Your task to perform on an android device: change the clock display to digital Image 0: 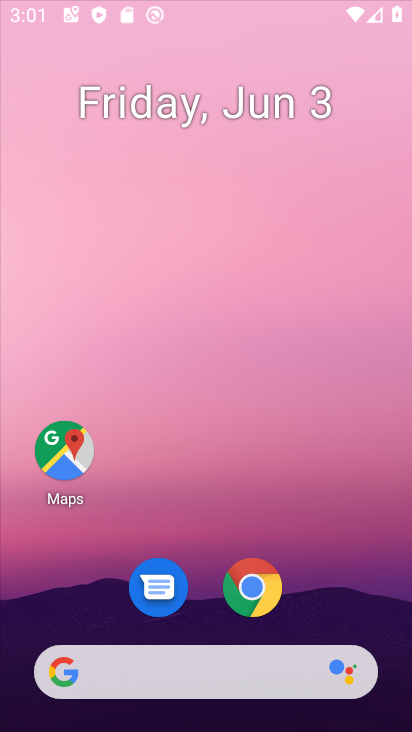
Step 0: click (247, 587)
Your task to perform on an android device: change the clock display to digital Image 1: 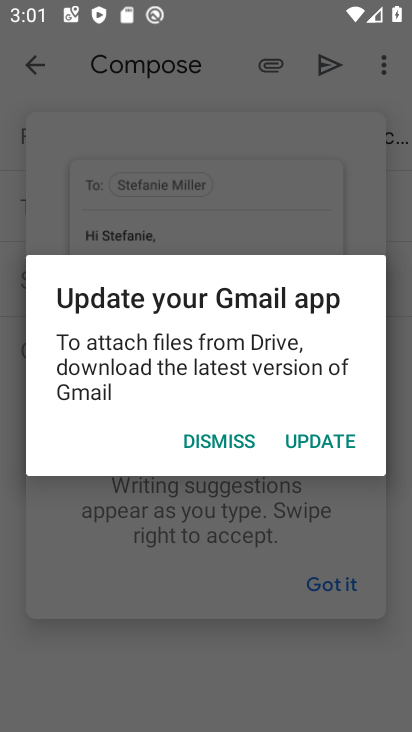
Step 1: press home button
Your task to perform on an android device: change the clock display to digital Image 2: 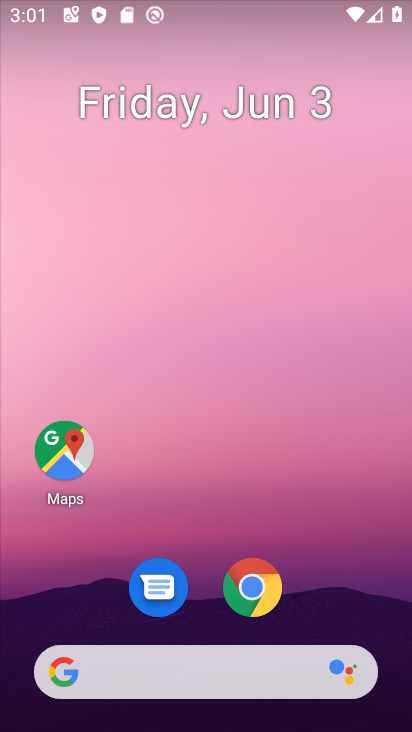
Step 2: drag from (253, 727) to (255, 23)
Your task to perform on an android device: change the clock display to digital Image 3: 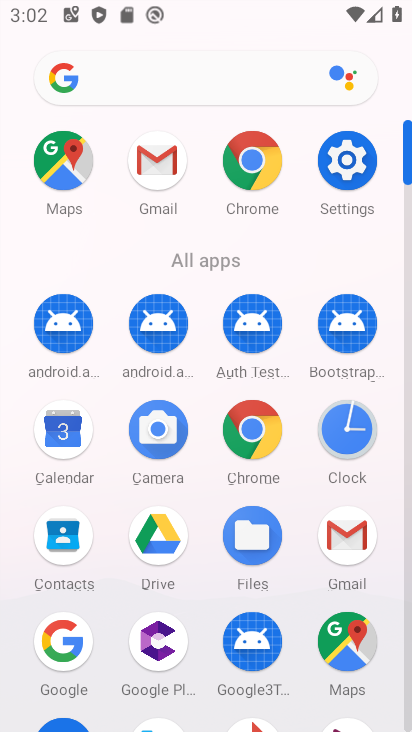
Step 3: click (354, 435)
Your task to perform on an android device: change the clock display to digital Image 4: 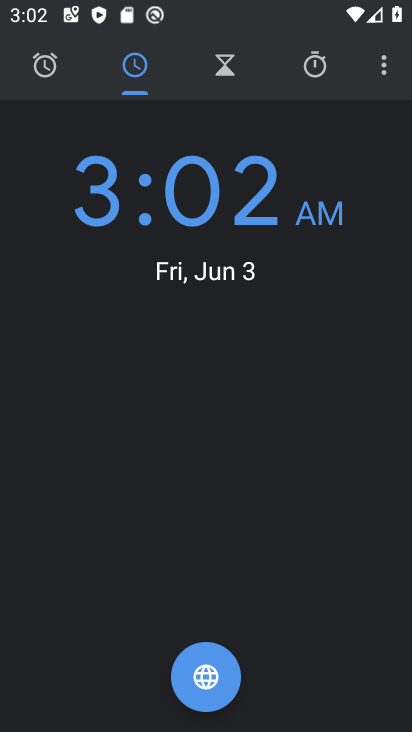
Step 4: click (384, 75)
Your task to perform on an android device: change the clock display to digital Image 5: 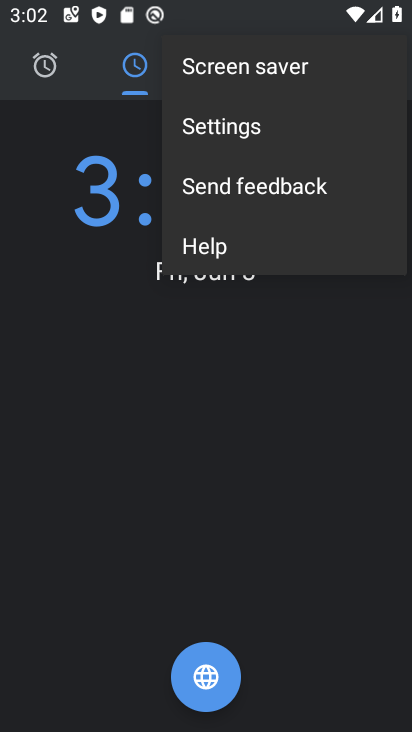
Step 5: click (211, 126)
Your task to perform on an android device: change the clock display to digital Image 6: 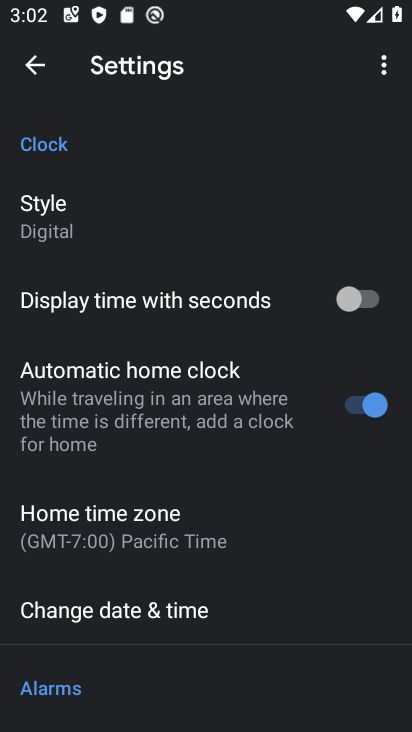
Step 6: task complete